Your task to perform on an android device: set an alarm Image 0: 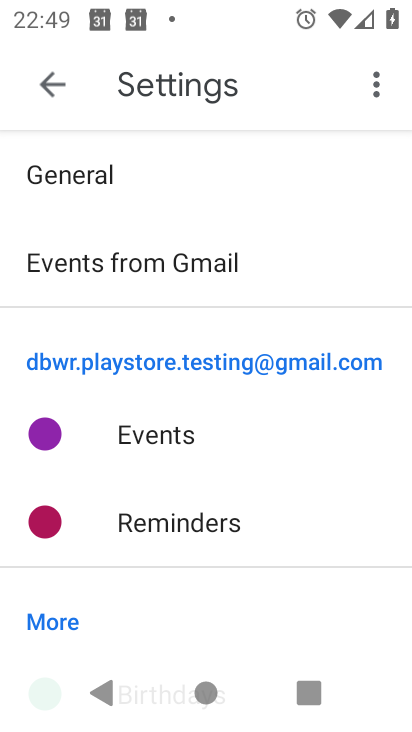
Step 0: press home button
Your task to perform on an android device: set an alarm Image 1: 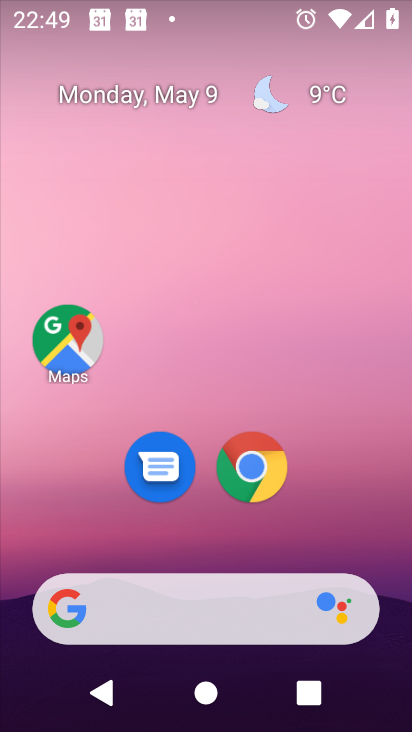
Step 1: drag from (346, 546) to (242, 3)
Your task to perform on an android device: set an alarm Image 2: 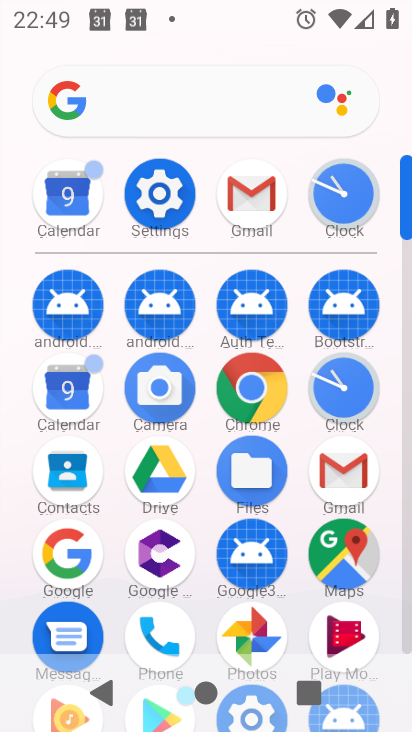
Step 2: click (347, 199)
Your task to perform on an android device: set an alarm Image 3: 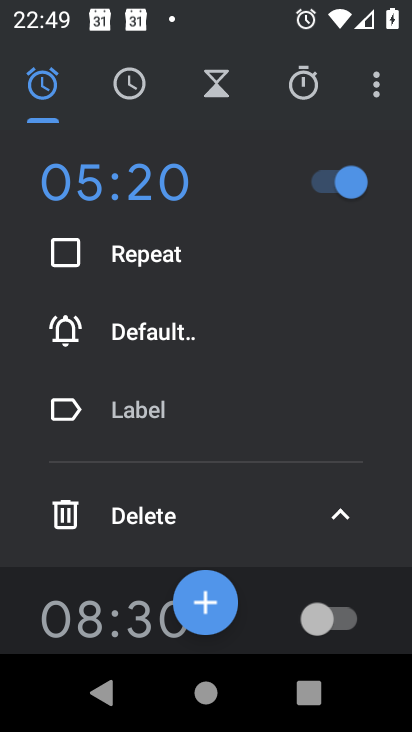
Step 3: click (202, 608)
Your task to perform on an android device: set an alarm Image 4: 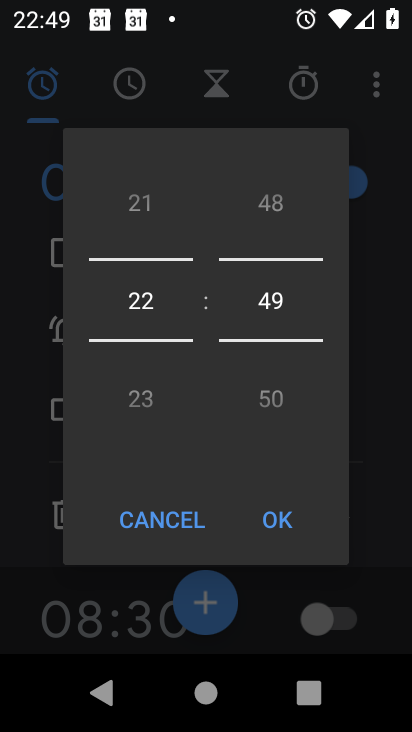
Step 4: drag from (136, 294) to (138, 487)
Your task to perform on an android device: set an alarm Image 5: 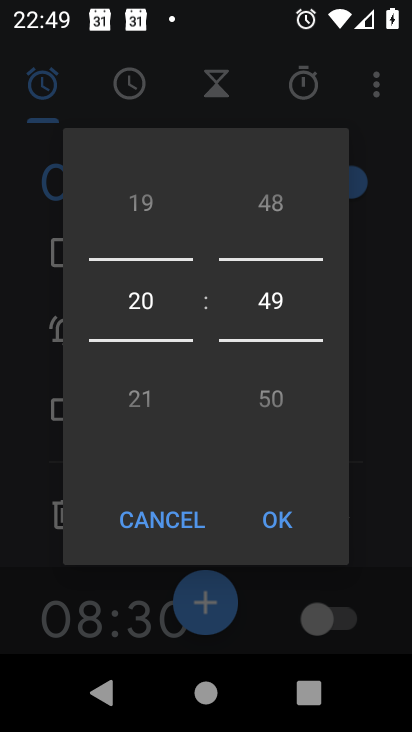
Step 5: drag from (275, 303) to (278, 540)
Your task to perform on an android device: set an alarm Image 6: 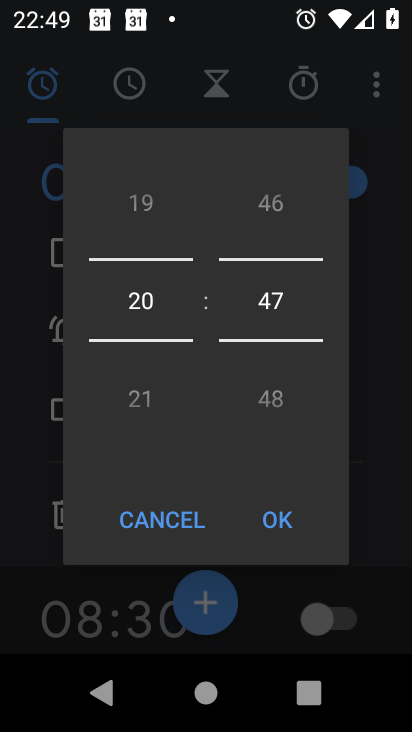
Step 6: drag from (271, 300) to (266, 531)
Your task to perform on an android device: set an alarm Image 7: 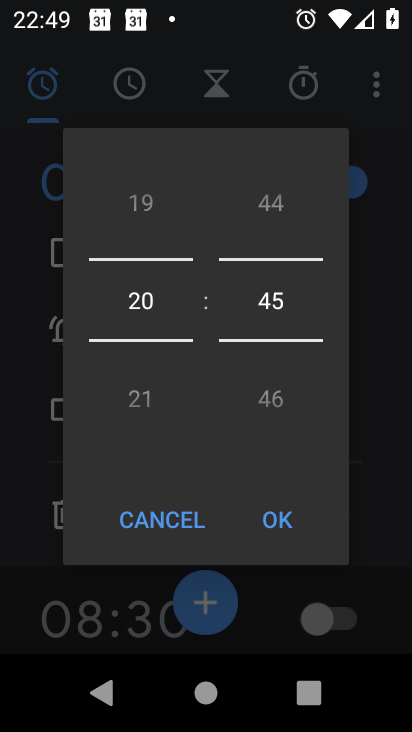
Step 7: click (270, 523)
Your task to perform on an android device: set an alarm Image 8: 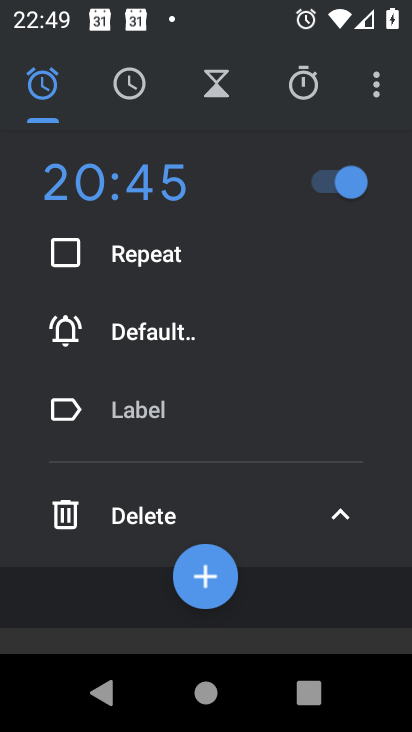
Step 8: task complete